Your task to perform on an android device: What's on my calendar tomorrow? Image 0: 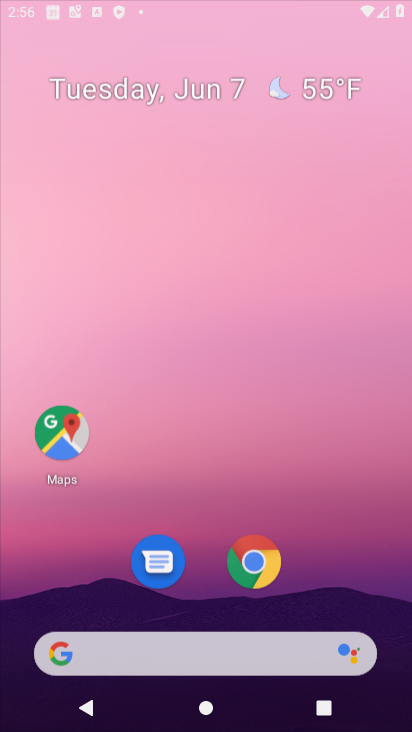
Step 0: click (249, 33)
Your task to perform on an android device: What's on my calendar tomorrow? Image 1: 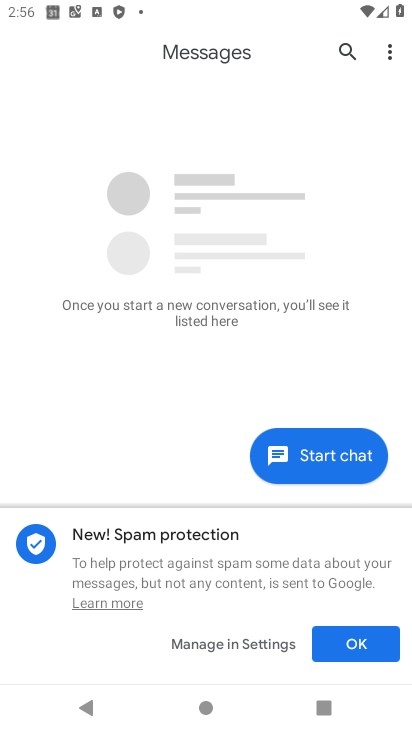
Step 1: press home button
Your task to perform on an android device: What's on my calendar tomorrow? Image 2: 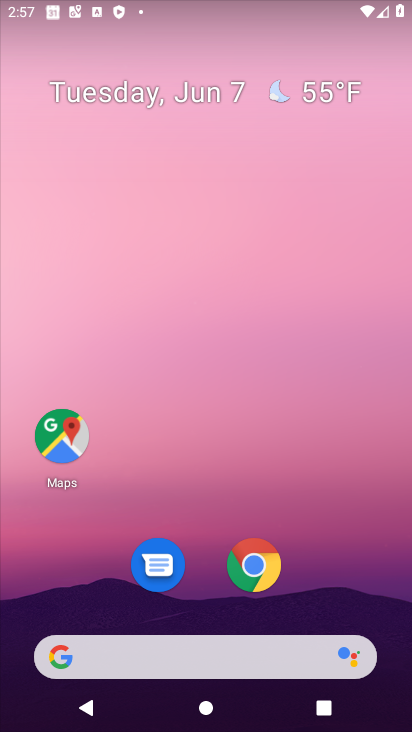
Step 2: drag from (329, 630) to (372, 17)
Your task to perform on an android device: What's on my calendar tomorrow? Image 3: 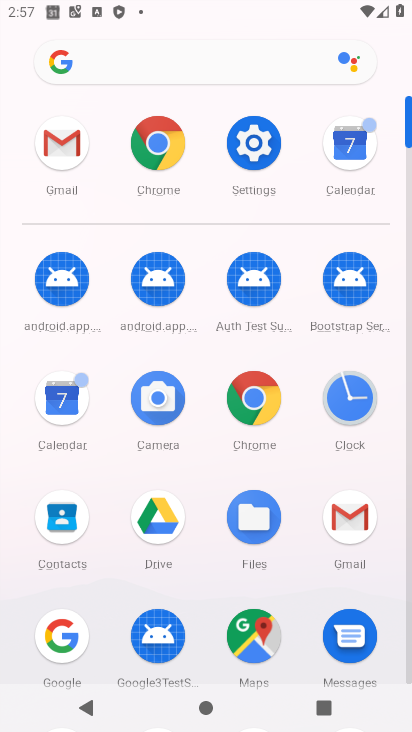
Step 3: click (53, 402)
Your task to perform on an android device: What's on my calendar tomorrow? Image 4: 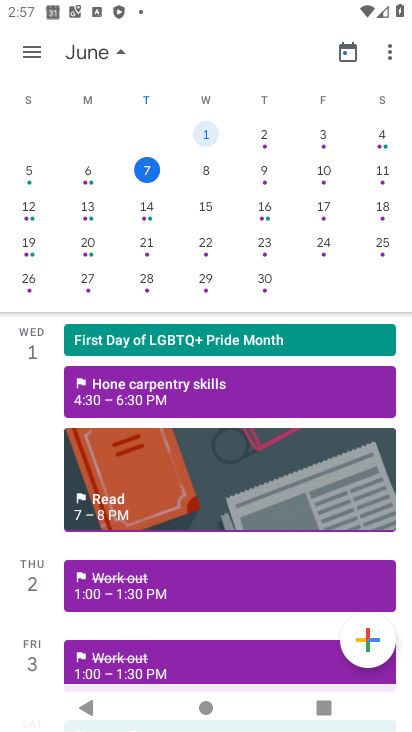
Step 4: click (113, 48)
Your task to perform on an android device: What's on my calendar tomorrow? Image 5: 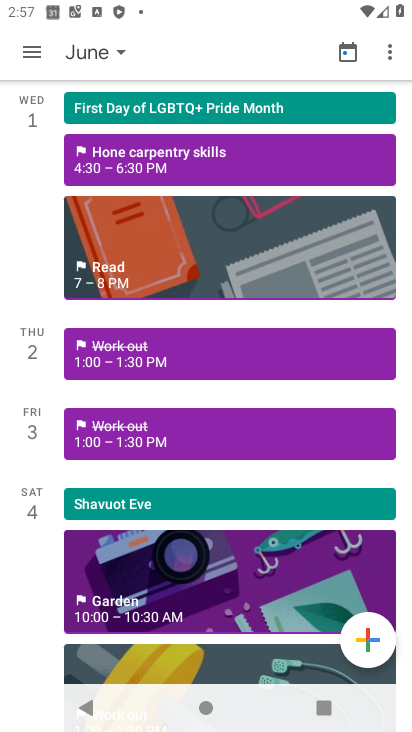
Step 5: click (126, 49)
Your task to perform on an android device: What's on my calendar tomorrow? Image 6: 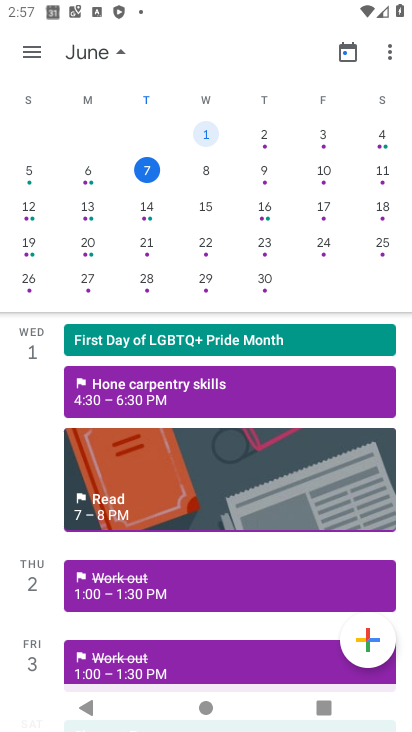
Step 6: click (210, 181)
Your task to perform on an android device: What's on my calendar tomorrow? Image 7: 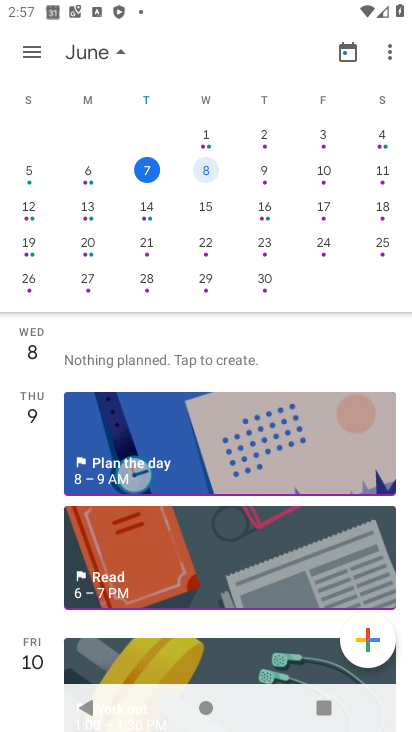
Step 7: task complete